Your task to perform on an android device: Go to ESPN.com Image 0: 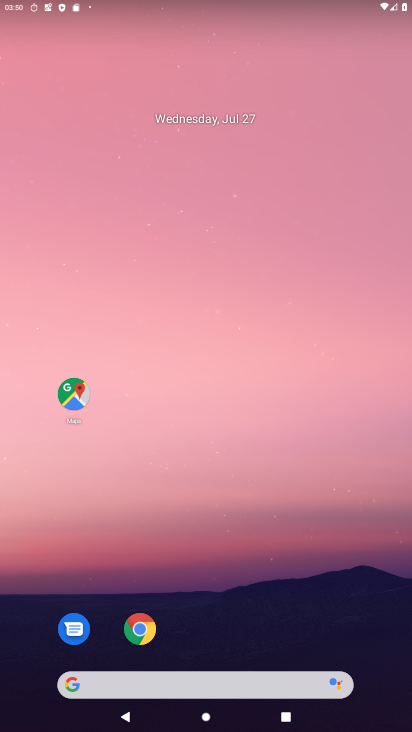
Step 0: drag from (307, 570) to (259, 52)
Your task to perform on an android device: Go to ESPN.com Image 1: 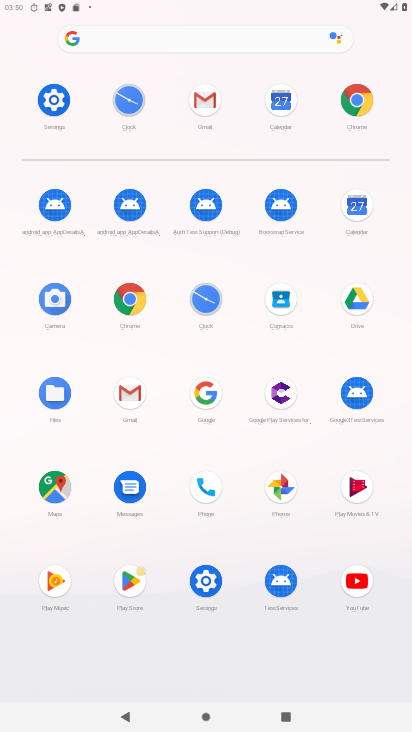
Step 1: click (357, 103)
Your task to perform on an android device: Go to ESPN.com Image 2: 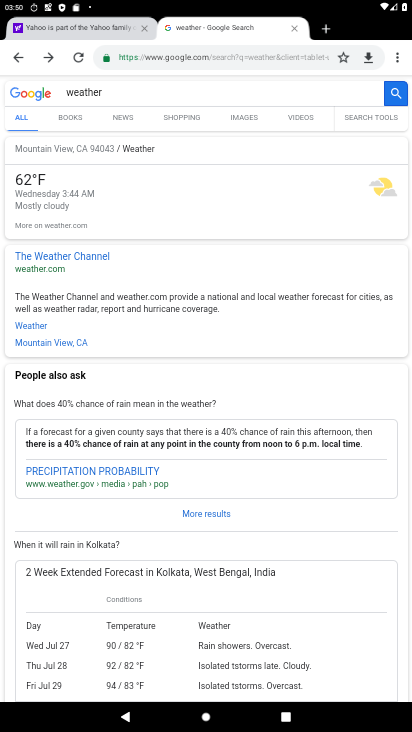
Step 2: click (250, 59)
Your task to perform on an android device: Go to ESPN.com Image 3: 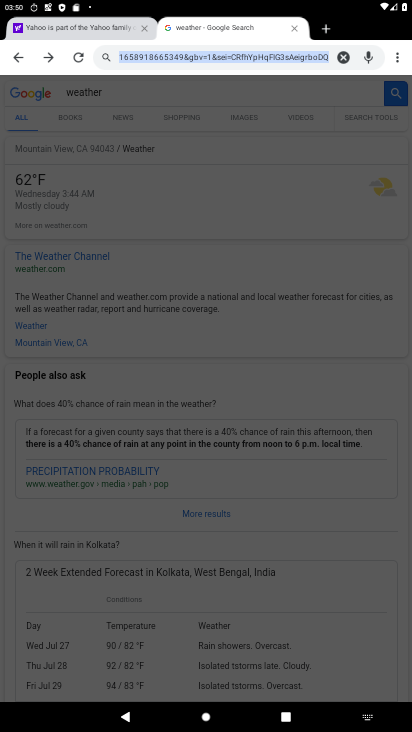
Step 3: type "espn.com"
Your task to perform on an android device: Go to ESPN.com Image 4: 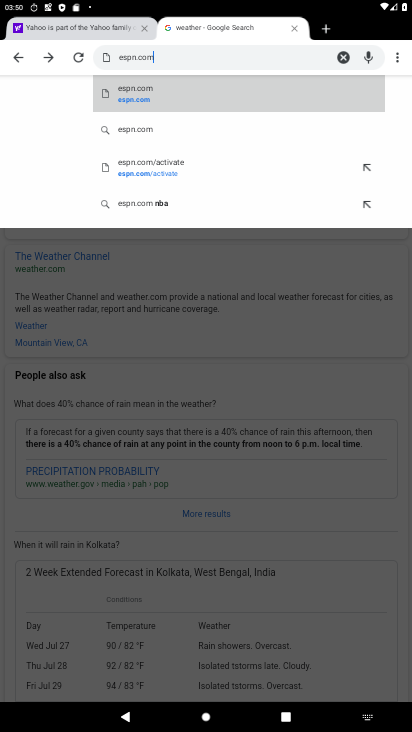
Step 4: click (277, 104)
Your task to perform on an android device: Go to ESPN.com Image 5: 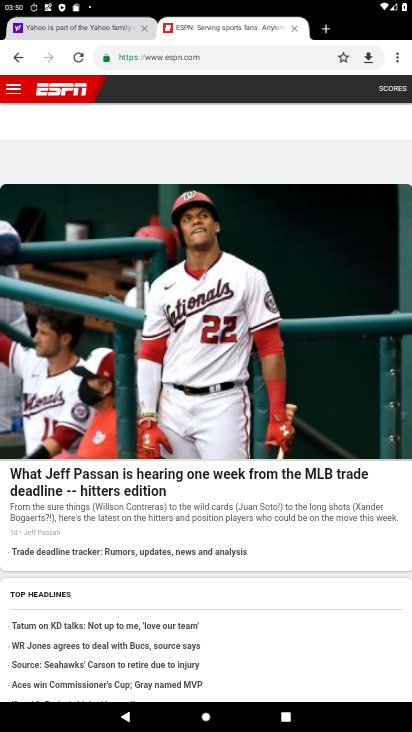
Step 5: task complete